Your task to perform on an android device: clear history in the chrome app Image 0: 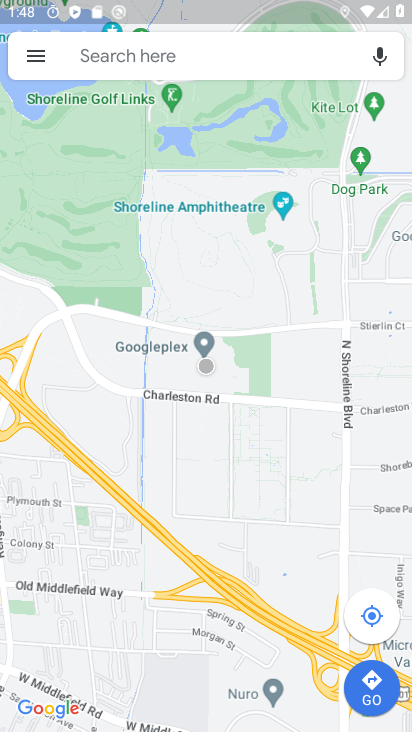
Step 0: press home button
Your task to perform on an android device: clear history in the chrome app Image 1: 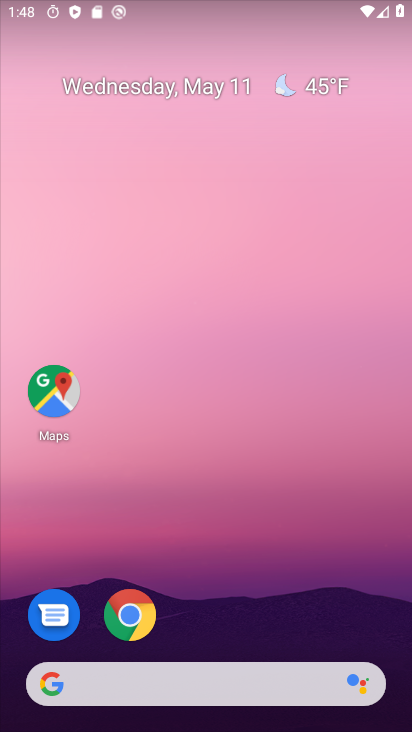
Step 1: click (130, 616)
Your task to perform on an android device: clear history in the chrome app Image 2: 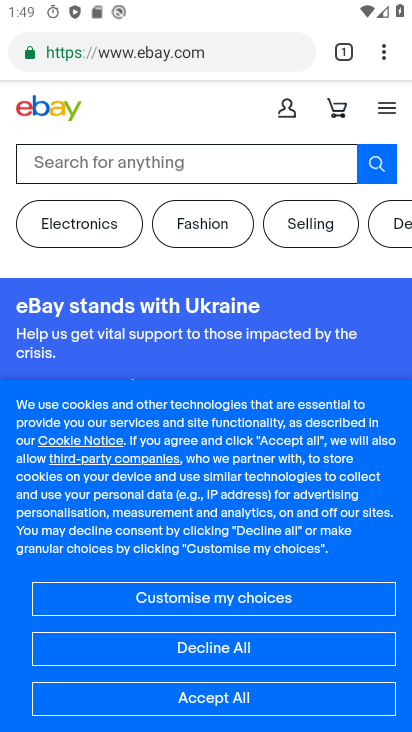
Step 2: drag from (388, 61) to (195, 295)
Your task to perform on an android device: clear history in the chrome app Image 3: 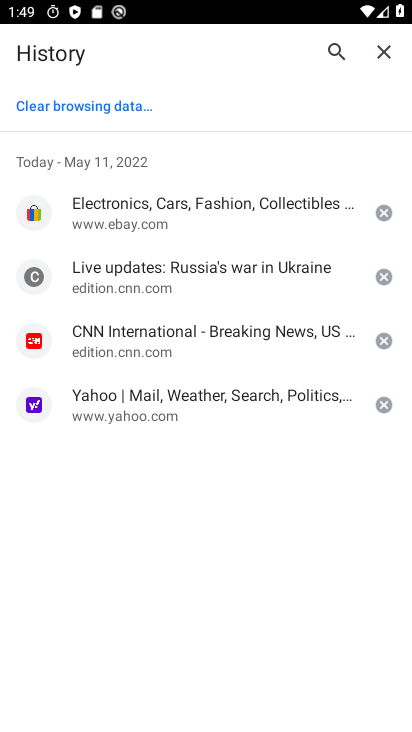
Step 3: click (64, 111)
Your task to perform on an android device: clear history in the chrome app Image 4: 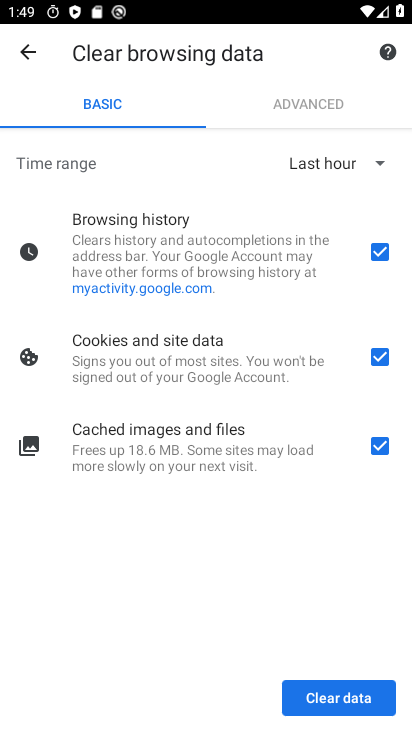
Step 4: click (338, 709)
Your task to perform on an android device: clear history in the chrome app Image 5: 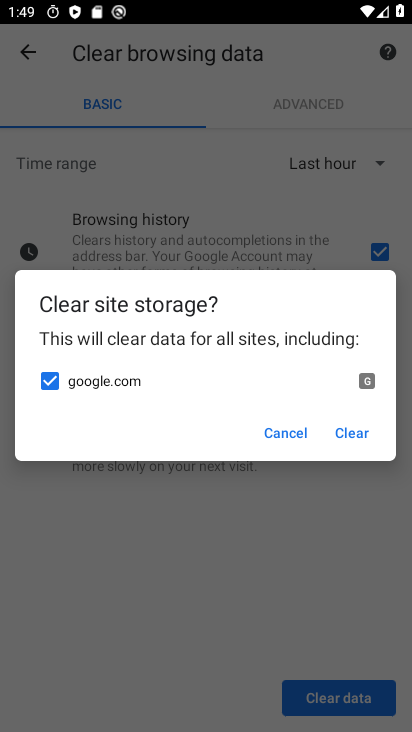
Step 5: click (348, 434)
Your task to perform on an android device: clear history in the chrome app Image 6: 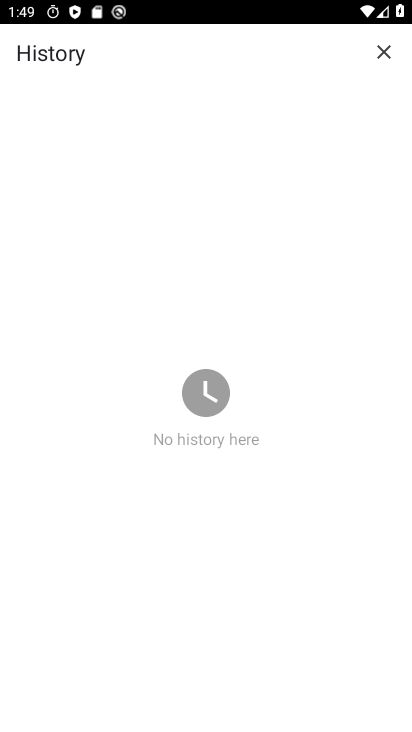
Step 6: task complete